Your task to perform on an android device: Do I have any events tomorrow? Image 0: 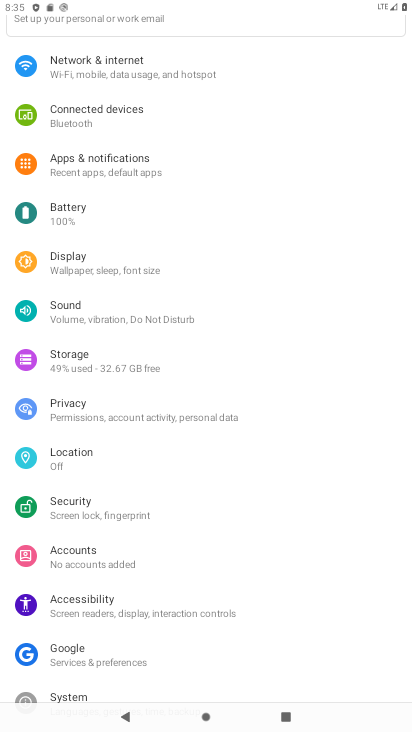
Step 0: press home button
Your task to perform on an android device: Do I have any events tomorrow? Image 1: 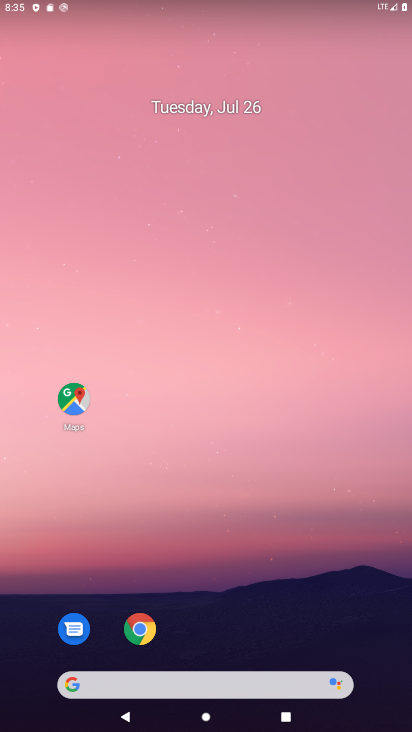
Step 1: drag from (228, 676) to (212, 0)
Your task to perform on an android device: Do I have any events tomorrow? Image 2: 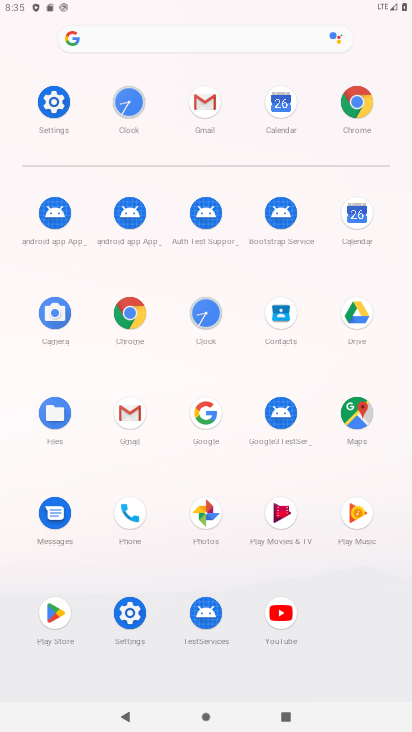
Step 2: click (273, 113)
Your task to perform on an android device: Do I have any events tomorrow? Image 3: 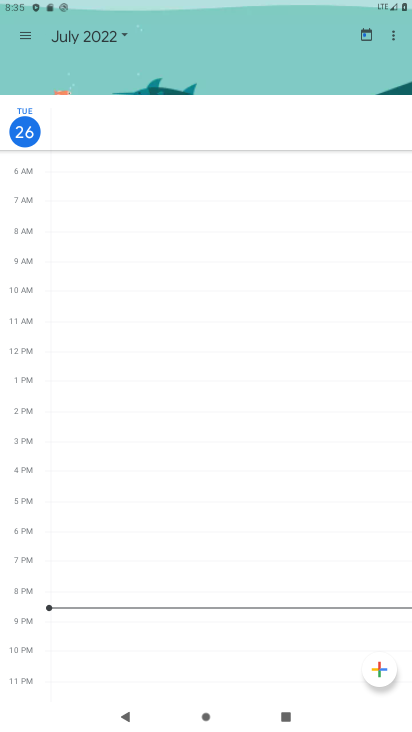
Step 3: click (365, 32)
Your task to perform on an android device: Do I have any events tomorrow? Image 4: 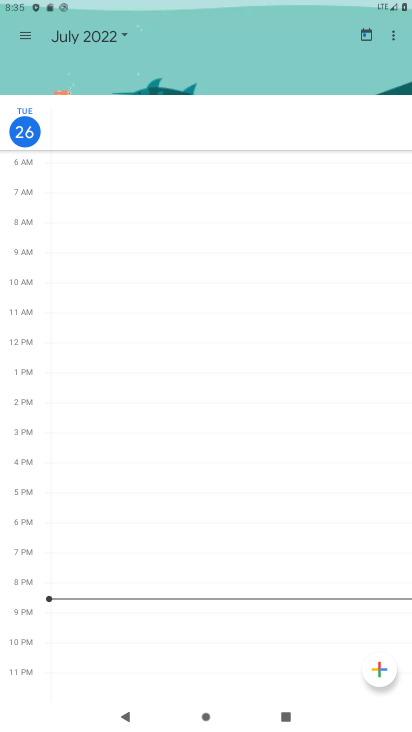
Step 4: click (365, 32)
Your task to perform on an android device: Do I have any events tomorrow? Image 5: 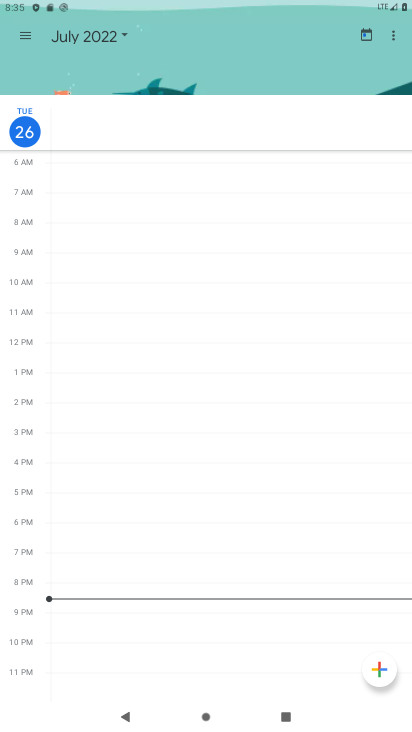
Step 5: click (21, 38)
Your task to perform on an android device: Do I have any events tomorrow? Image 6: 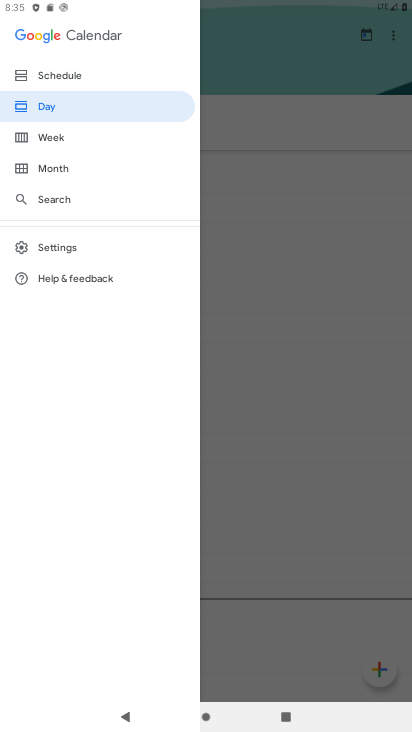
Step 6: click (62, 139)
Your task to perform on an android device: Do I have any events tomorrow? Image 7: 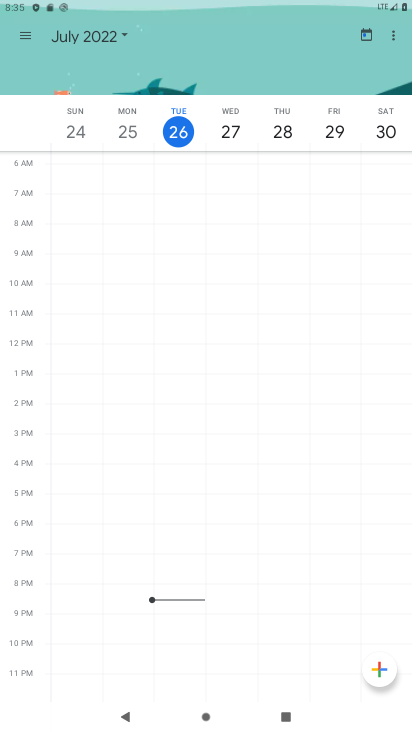
Step 7: click (222, 127)
Your task to perform on an android device: Do I have any events tomorrow? Image 8: 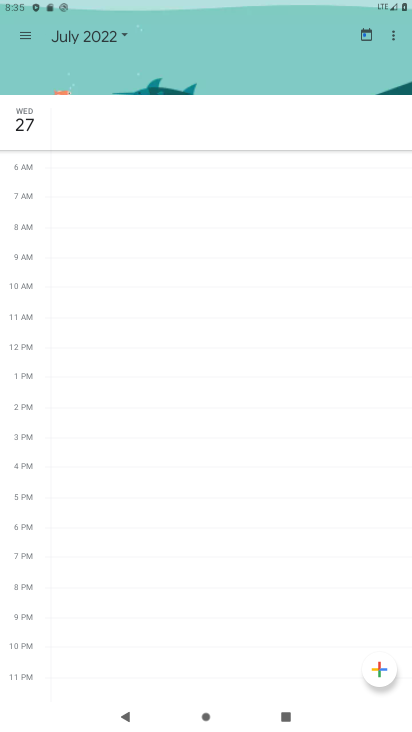
Step 8: task complete